Your task to perform on an android device: What is the news today? Image 0: 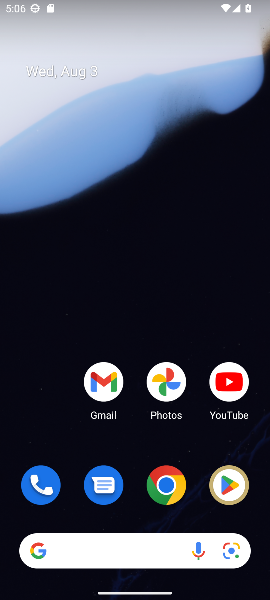
Step 0: click (116, 551)
Your task to perform on an android device: What is the news today? Image 1: 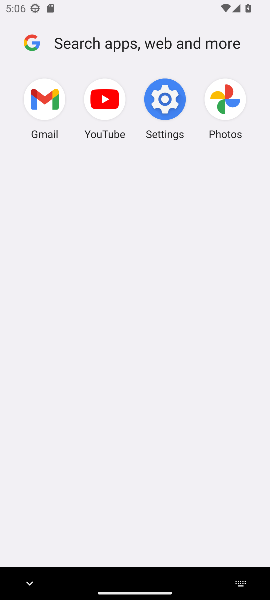
Step 1: type "news today"
Your task to perform on an android device: What is the news today? Image 2: 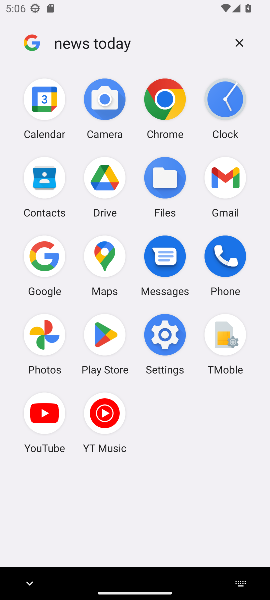
Step 2: click (165, 39)
Your task to perform on an android device: What is the news today? Image 3: 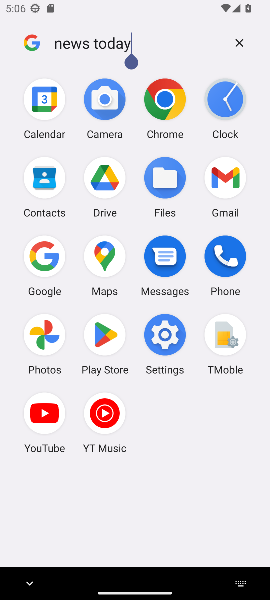
Step 3: click (244, 40)
Your task to perform on an android device: What is the news today? Image 4: 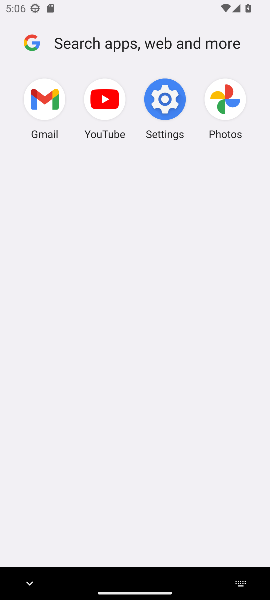
Step 4: click (27, 41)
Your task to perform on an android device: What is the news today? Image 5: 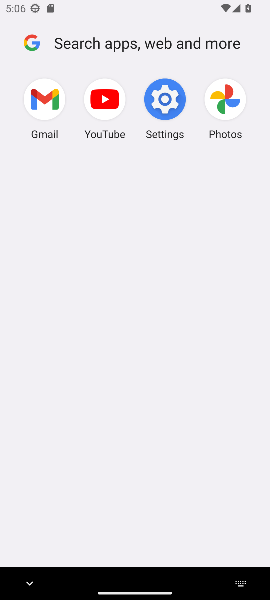
Step 5: click (32, 39)
Your task to perform on an android device: What is the news today? Image 6: 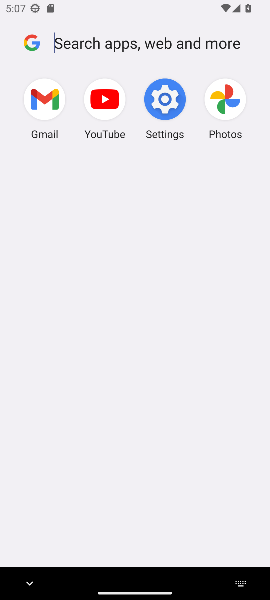
Step 6: press home button
Your task to perform on an android device: What is the news today? Image 7: 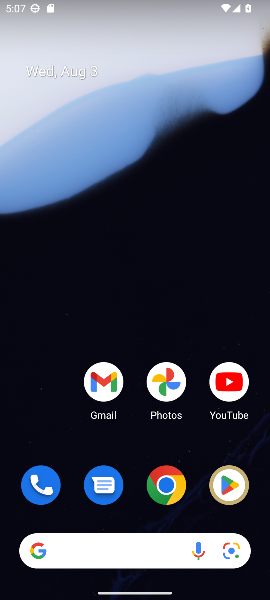
Step 7: click (95, 552)
Your task to perform on an android device: What is the news today? Image 8: 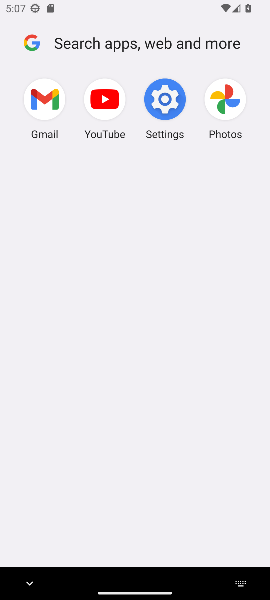
Step 8: type "news today ?"
Your task to perform on an android device: What is the news today? Image 9: 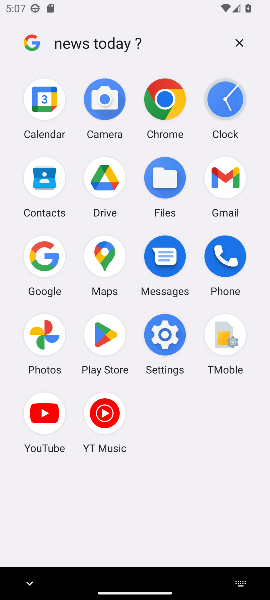
Step 9: task complete